Your task to perform on an android device: change the clock display to show seconds Image 0: 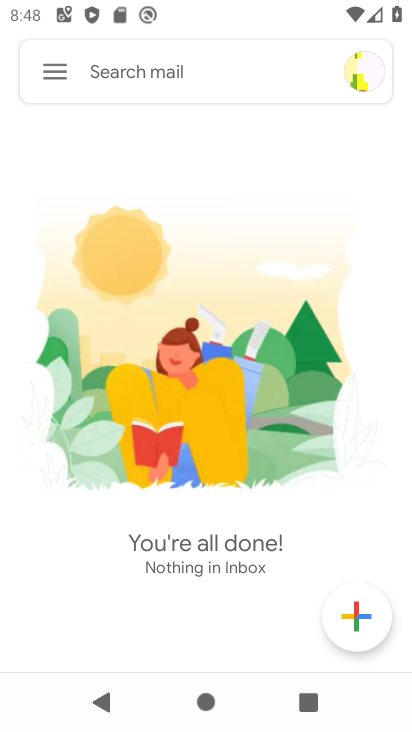
Step 0: press home button
Your task to perform on an android device: change the clock display to show seconds Image 1: 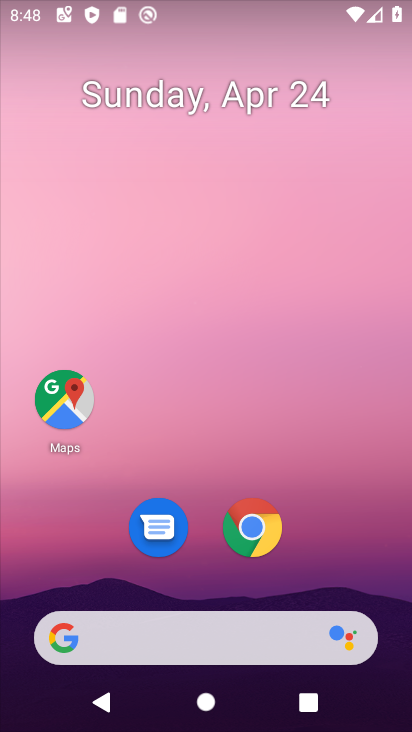
Step 1: drag from (376, 509) to (363, 2)
Your task to perform on an android device: change the clock display to show seconds Image 2: 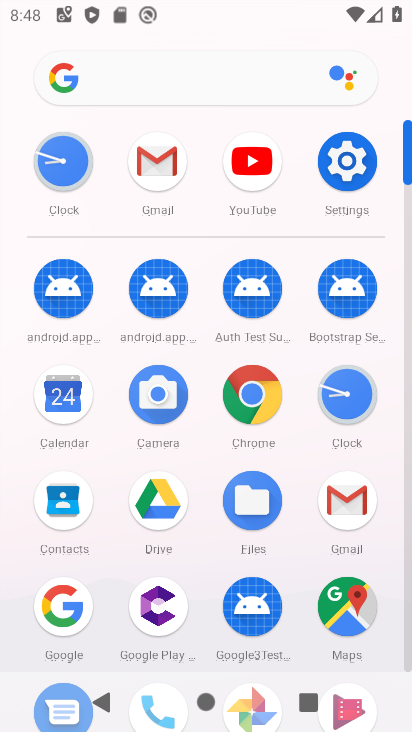
Step 2: click (50, 162)
Your task to perform on an android device: change the clock display to show seconds Image 3: 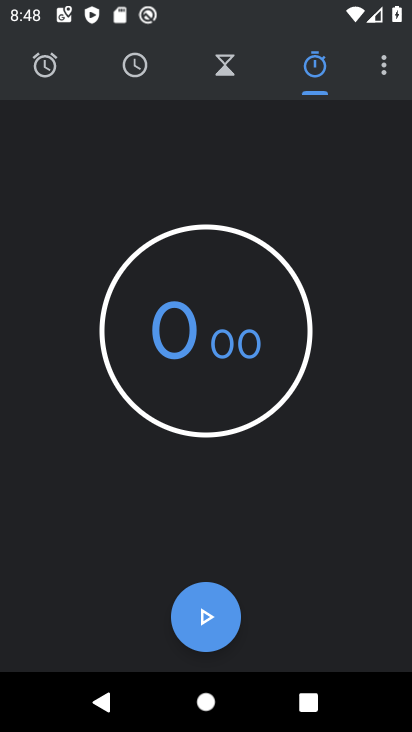
Step 3: click (384, 82)
Your task to perform on an android device: change the clock display to show seconds Image 4: 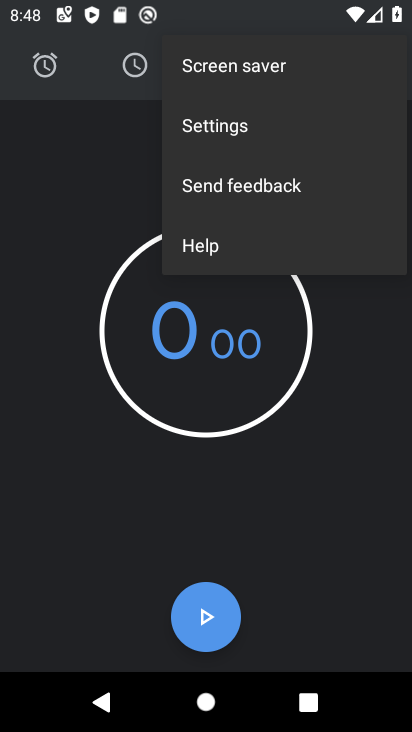
Step 4: click (198, 138)
Your task to perform on an android device: change the clock display to show seconds Image 5: 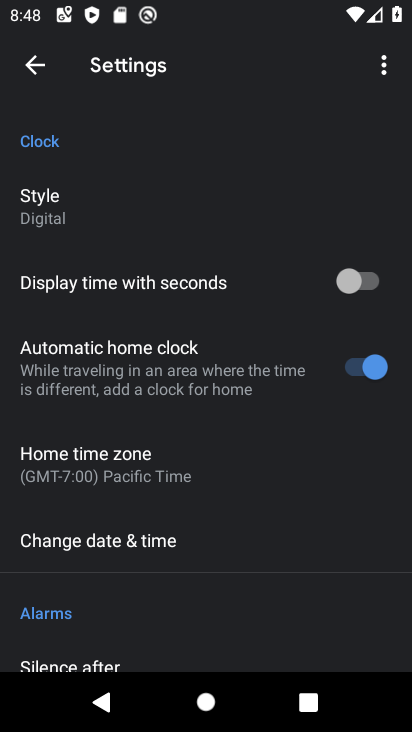
Step 5: click (361, 274)
Your task to perform on an android device: change the clock display to show seconds Image 6: 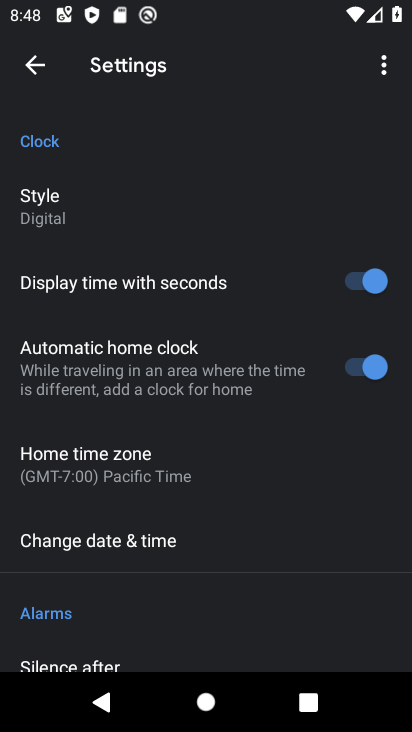
Step 6: task complete